Your task to perform on an android device: turn off javascript in the chrome app Image 0: 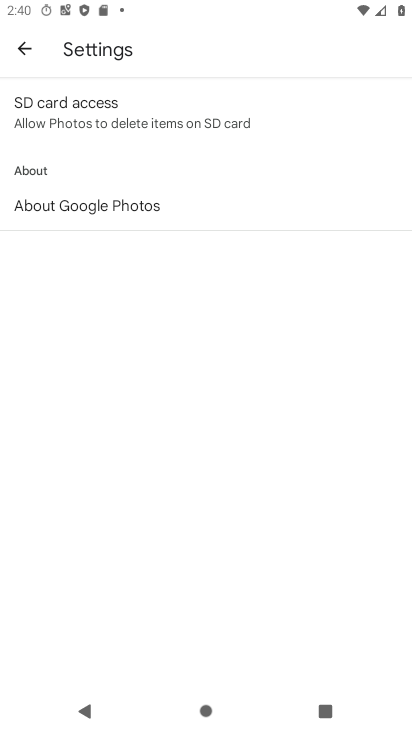
Step 0: press home button
Your task to perform on an android device: turn off javascript in the chrome app Image 1: 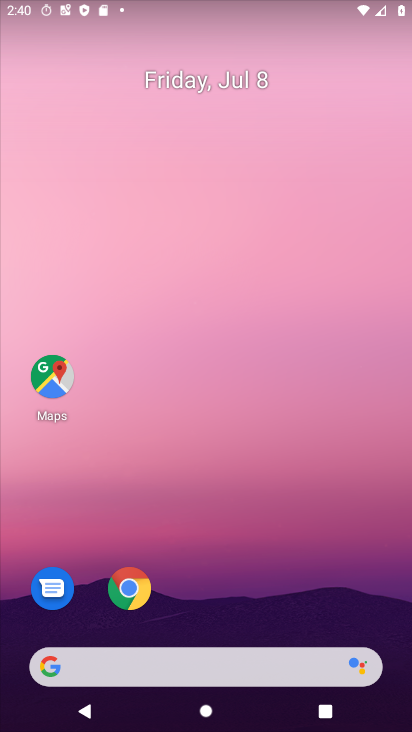
Step 1: drag from (270, 614) to (359, 123)
Your task to perform on an android device: turn off javascript in the chrome app Image 2: 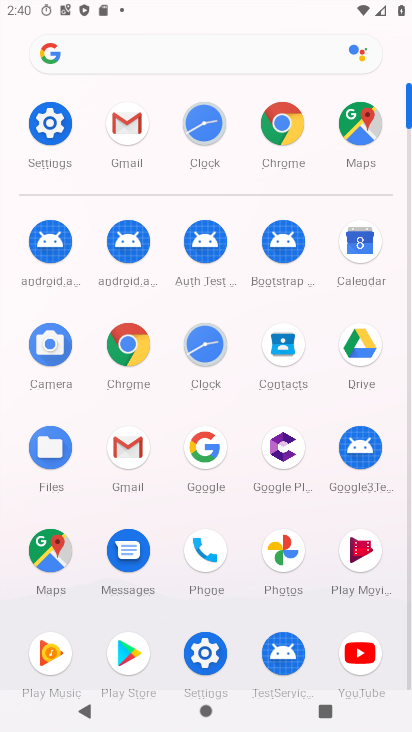
Step 2: click (280, 121)
Your task to perform on an android device: turn off javascript in the chrome app Image 3: 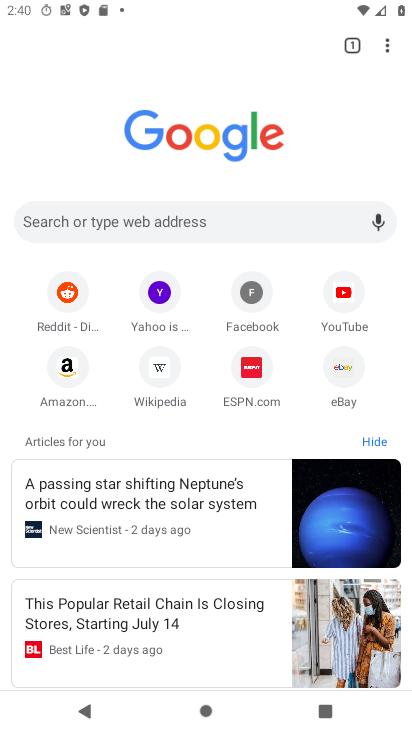
Step 3: drag from (389, 35) to (248, 391)
Your task to perform on an android device: turn off javascript in the chrome app Image 4: 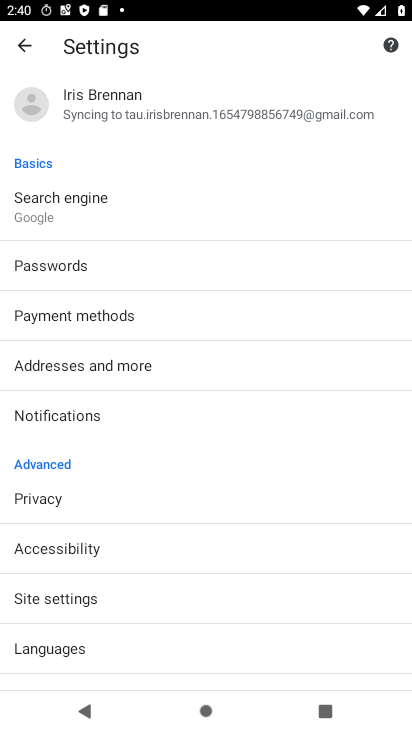
Step 4: click (83, 599)
Your task to perform on an android device: turn off javascript in the chrome app Image 5: 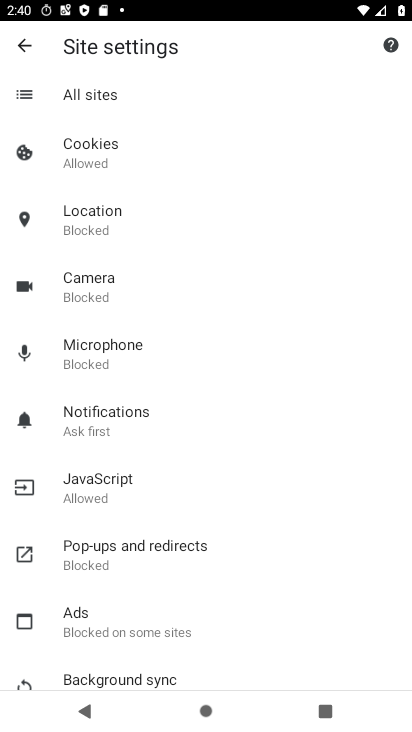
Step 5: click (111, 492)
Your task to perform on an android device: turn off javascript in the chrome app Image 6: 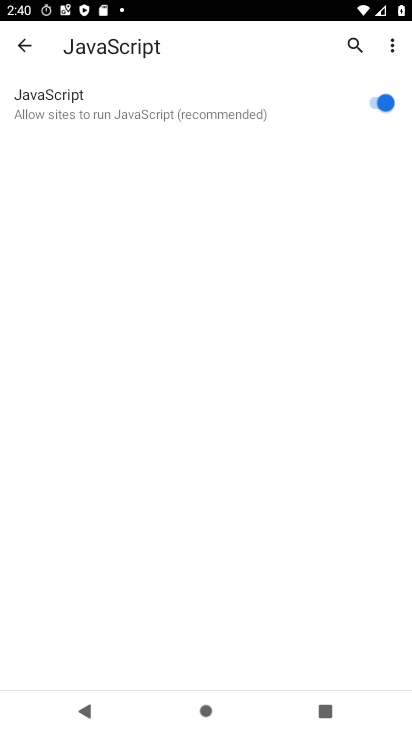
Step 6: click (389, 105)
Your task to perform on an android device: turn off javascript in the chrome app Image 7: 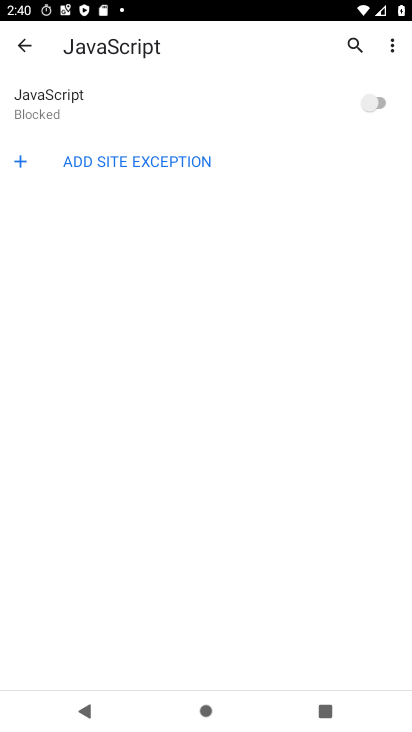
Step 7: task complete